Your task to perform on an android device: turn on data saver in the chrome app Image 0: 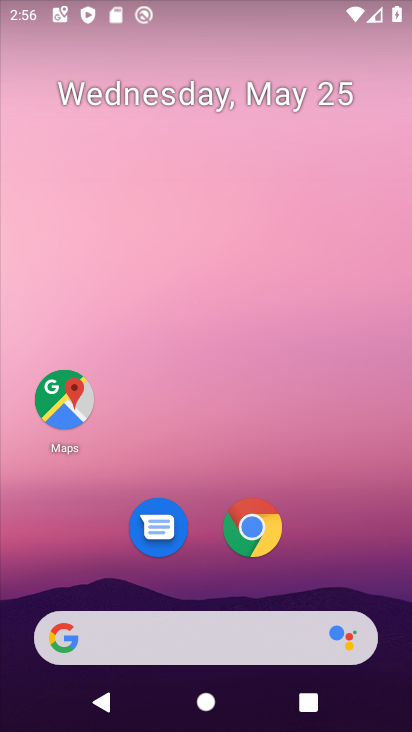
Step 0: click (255, 211)
Your task to perform on an android device: turn on data saver in the chrome app Image 1: 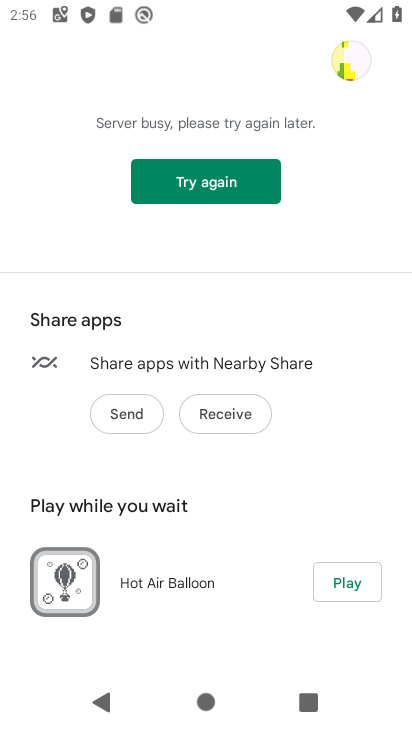
Step 1: press home button
Your task to perform on an android device: turn on data saver in the chrome app Image 2: 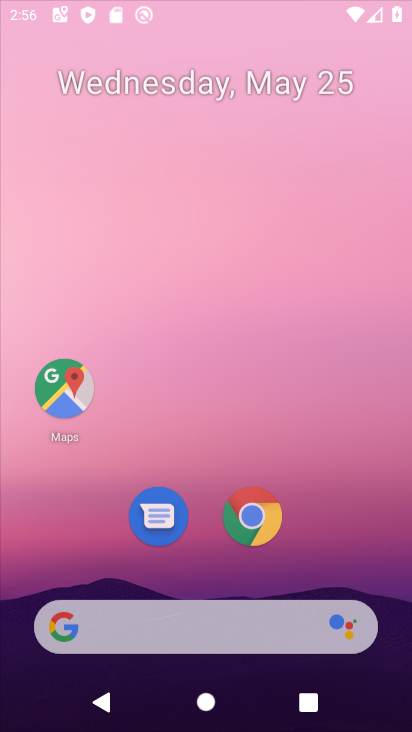
Step 2: drag from (228, 586) to (302, 80)
Your task to perform on an android device: turn on data saver in the chrome app Image 3: 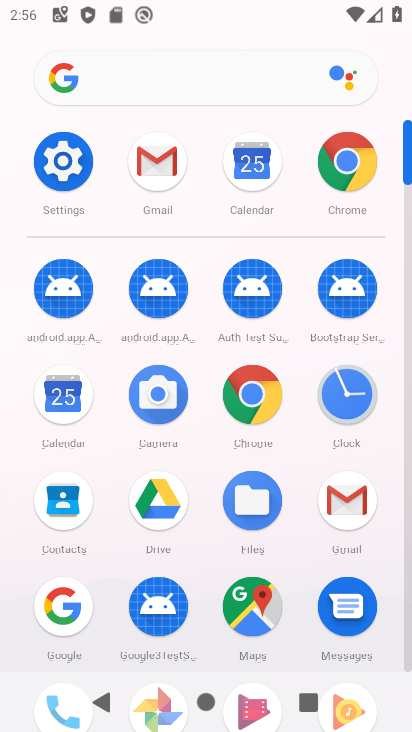
Step 3: click (258, 382)
Your task to perform on an android device: turn on data saver in the chrome app Image 4: 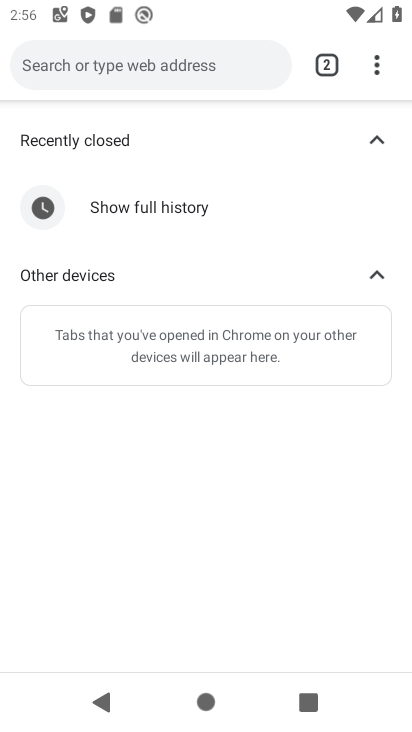
Step 4: click (379, 65)
Your task to perform on an android device: turn on data saver in the chrome app Image 5: 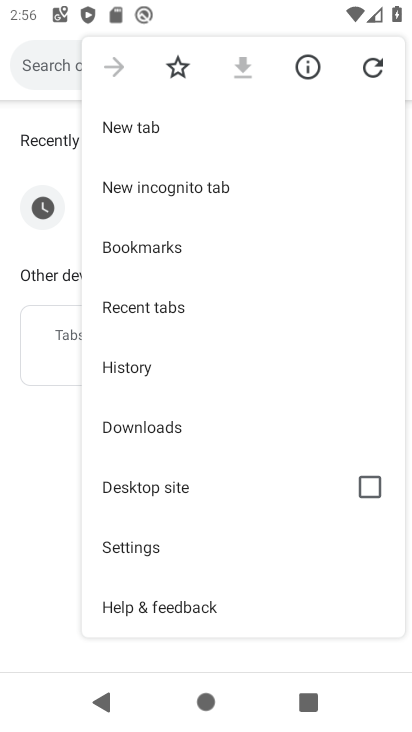
Step 5: click (188, 553)
Your task to perform on an android device: turn on data saver in the chrome app Image 6: 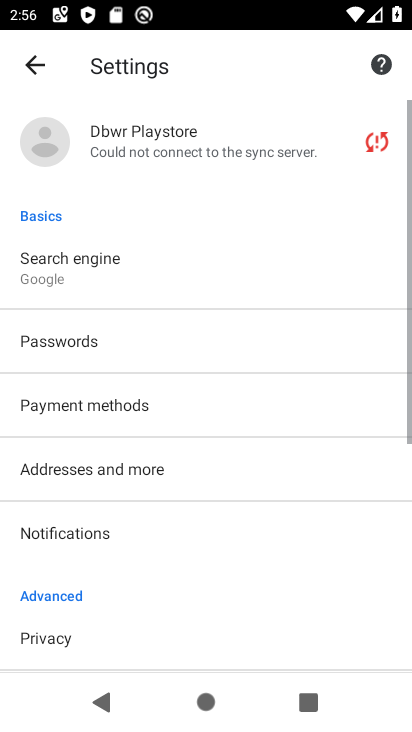
Step 6: drag from (182, 546) to (179, 159)
Your task to perform on an android device: turn on data saver in the chrome app Image 7: 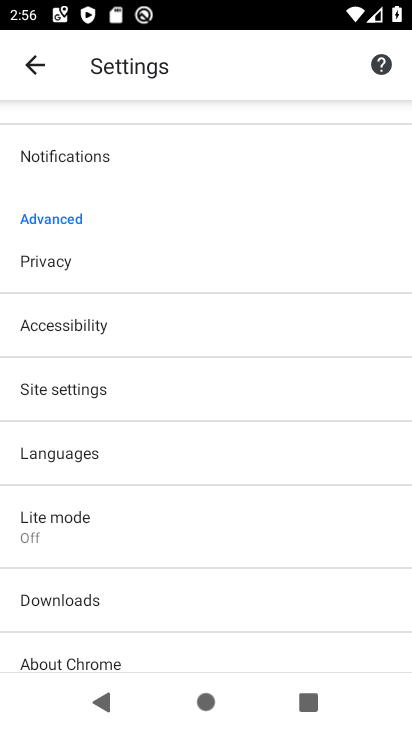
Step 7: drag from (117, 577) to (208, 93)
Your task to perform on an android device: turn on data saver in the chrome app Image 8: 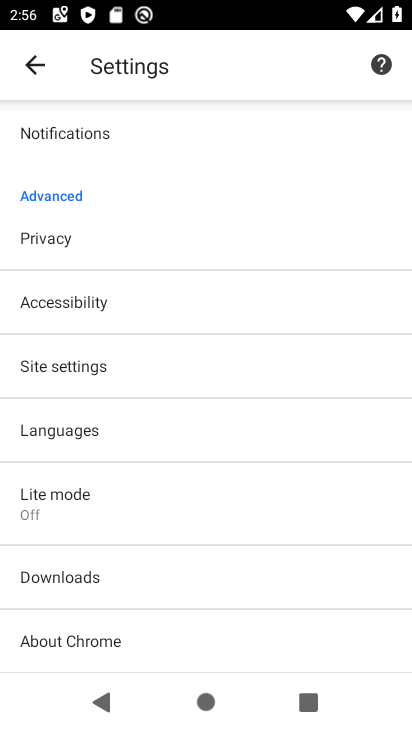
Step 8: click (91, 364)
Your task to perform on an android device: turn on data saver in the chrome app Image 9: 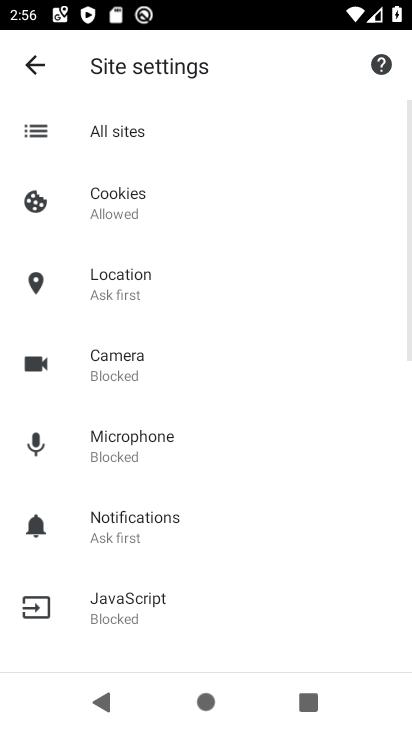
Step 9: drag from (195, 458) to (250, 109)
Your task to perform on an android device: turn on data saver in the chrome app Image 10: 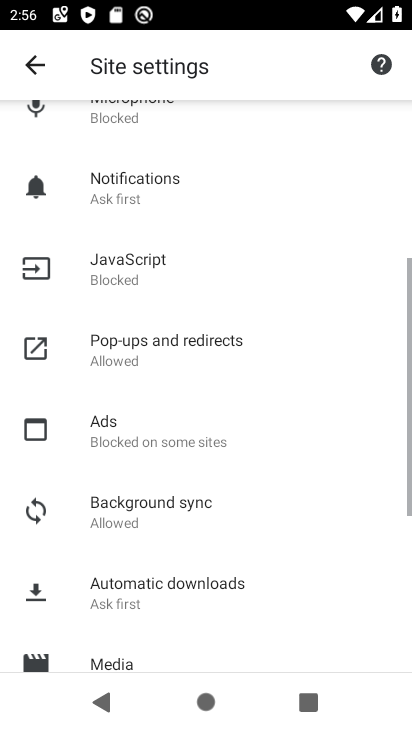
Step 10: drag from (184, 549) to (215, 89)
Your task to perform on an android device: turn on data saver in the chrome app Image 11: 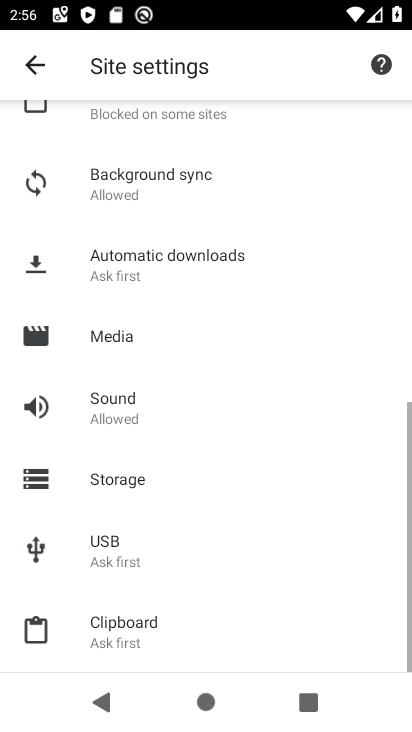
Step 11: drag from (225, 160) to (307, 702)
Your task to perform on an android device: turn on data saver in the chrome app Image 12: 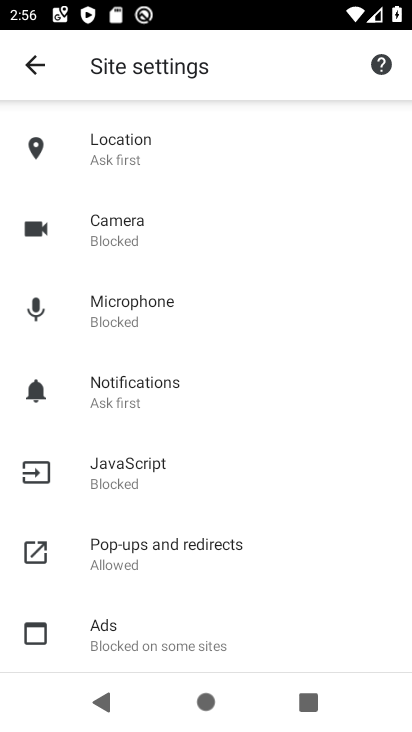
Step 12: click (16, 61)
Your task to perform on an android device: turn on data saver in the chrome app Image 13: 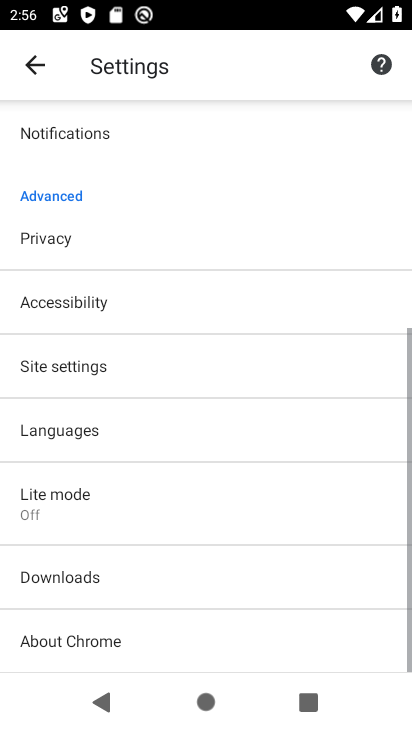
Step 13: drag from (166, 515) to (219, 155)
Your task to perform on an android device: turn on data saver in the chrome app Image 14: 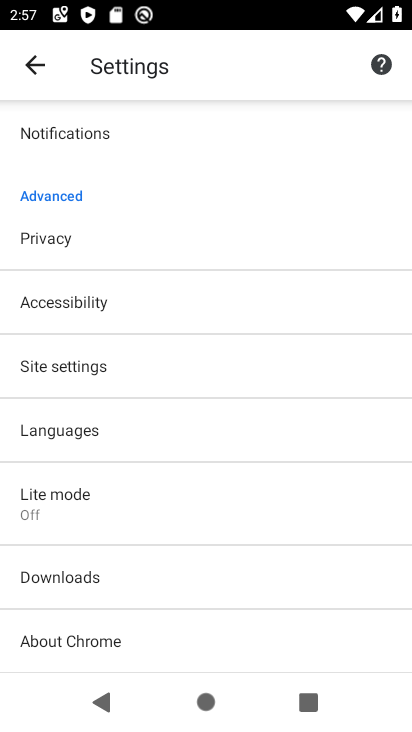
Step 14: click (152, 516)
Your task to perform on an android device: turn on data saver in the chrome app Image 15: 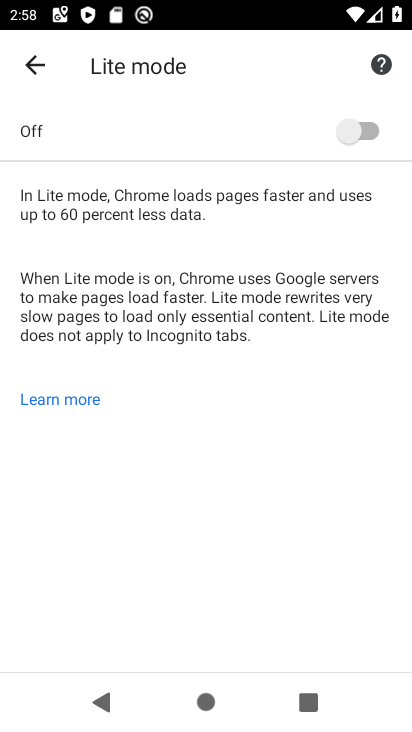
Step 15: click (350, 138)
Your task to perform on an android device: turn on data saver in the chrome app Image 16: 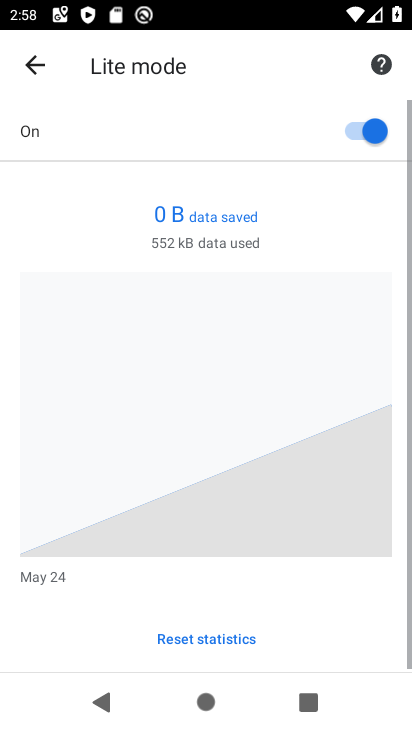
Step 16: task complete